Your task to perform on an android device: Clear the shopping cart on amazon.com. Add "razer kraken" to the cart on amazon.com Image 0: 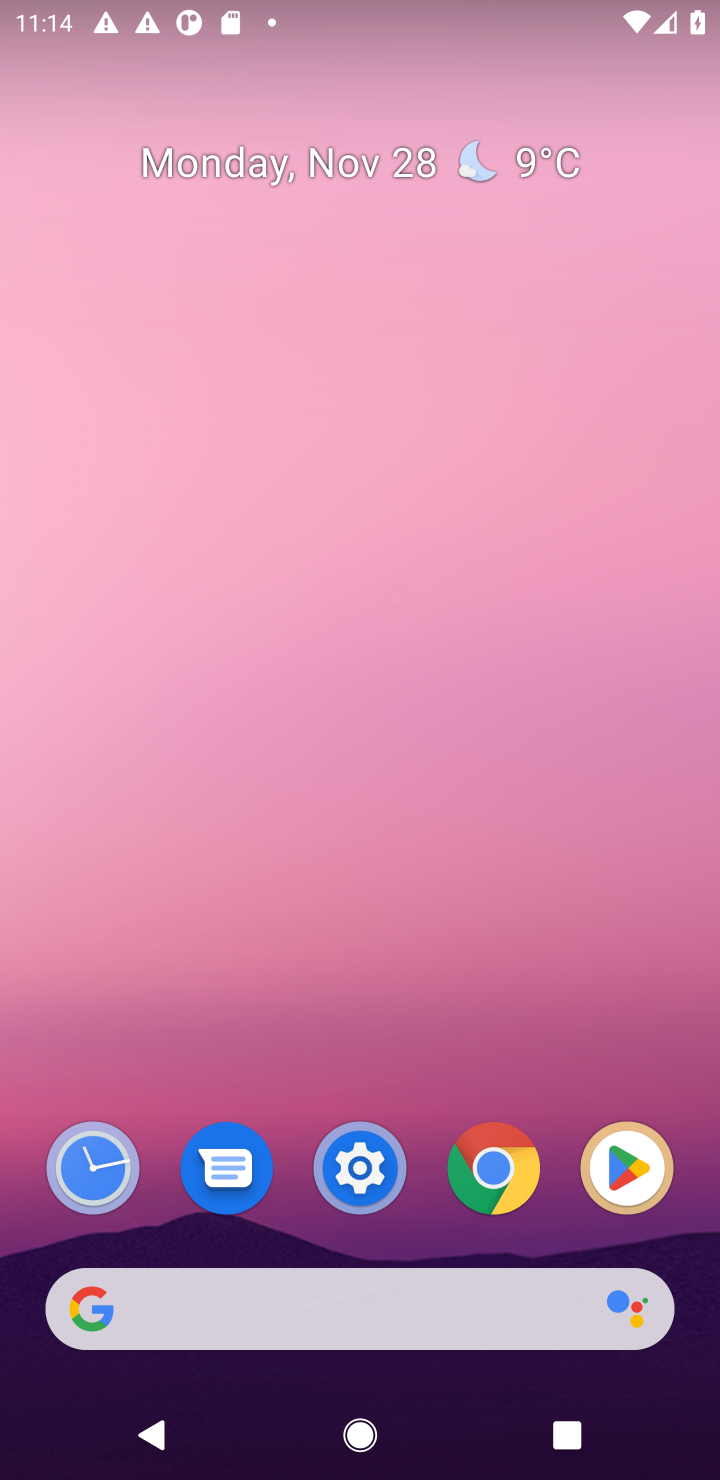
Step 0: click (200, 1296)
Your task to perform on an android device: Clear the shopping cart on amazon.com. Add "razer kraken" to the cart on amazon.com Image 1: 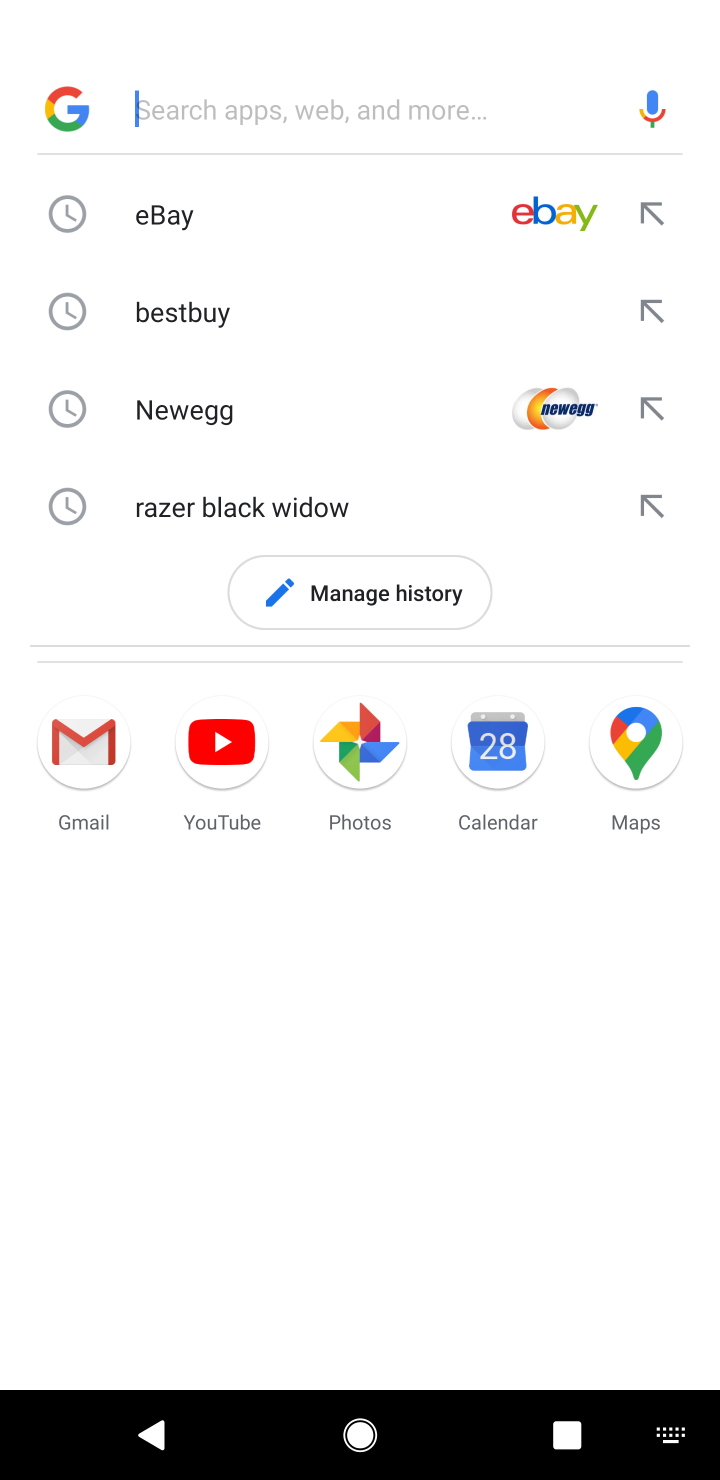
Step 1: type "amazon"
Your task to perform on an android device: Clear the shopping cart on amazon.com. Add "razer kraken" to the cart on amazon.com Image 2: 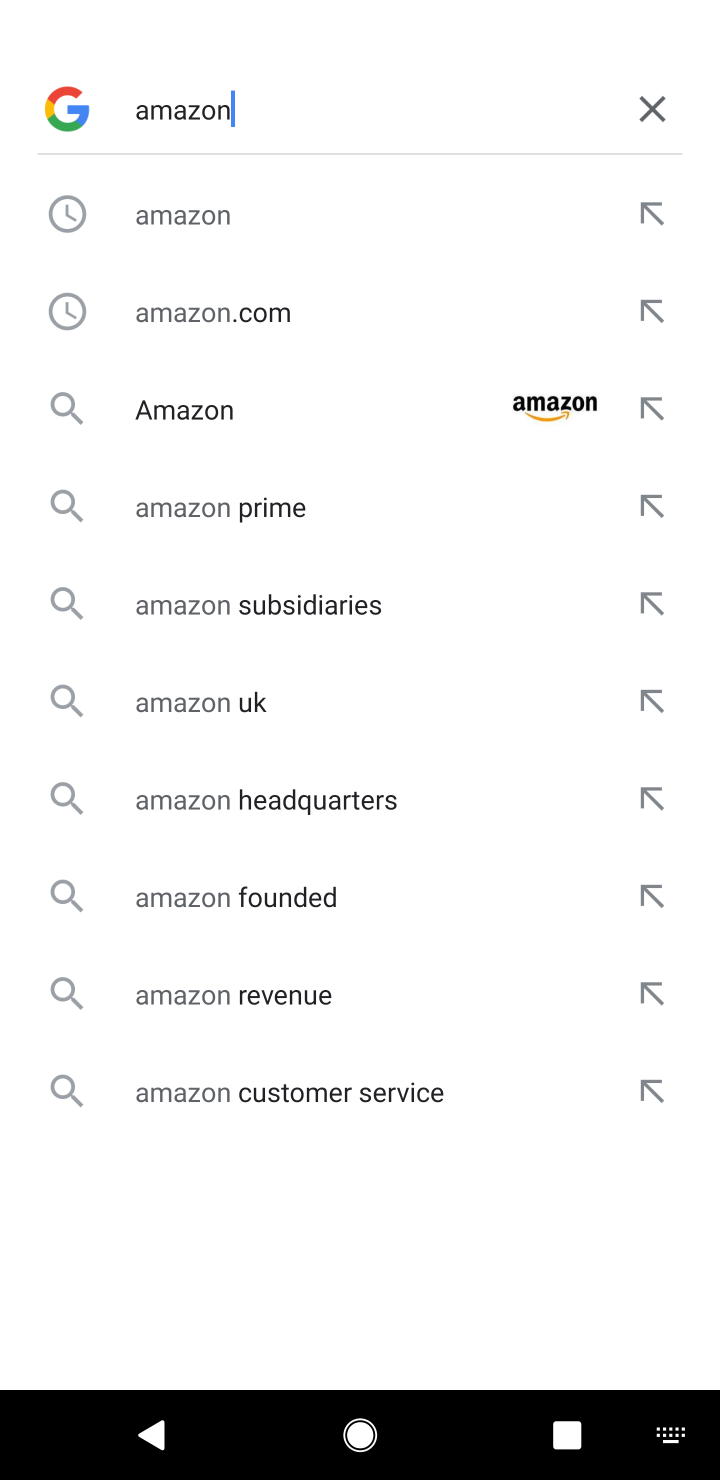
Step 2: click (289, 407)
Your task to perform on an android device: Clear the shopping cart on amazon.com. Add "razer kraken" to the cart on amazon.com Image 3: 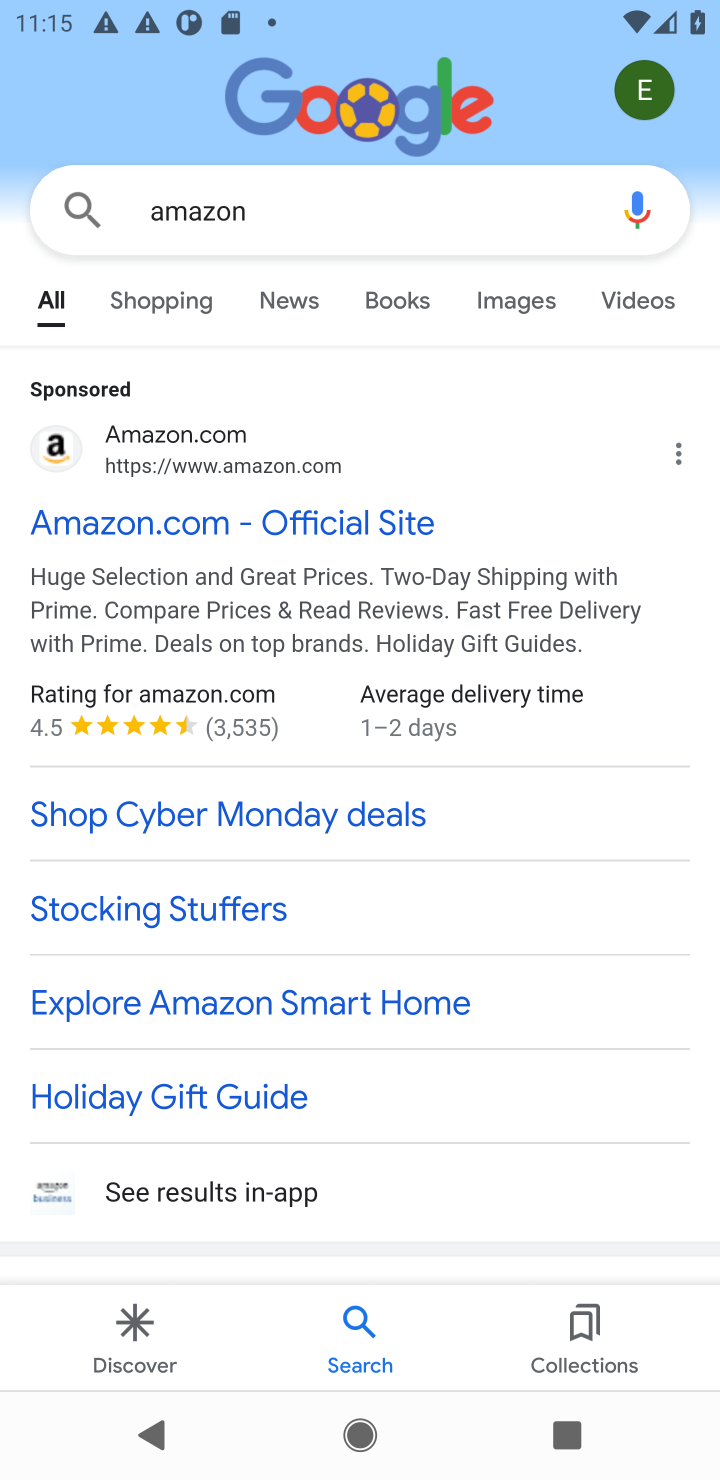
Step 3: click (207, 549)
Your task to perform on an android device: Clear the shopping cart on amazon.com. Add "razer kraken" to the cart on amazon.com Image 4: 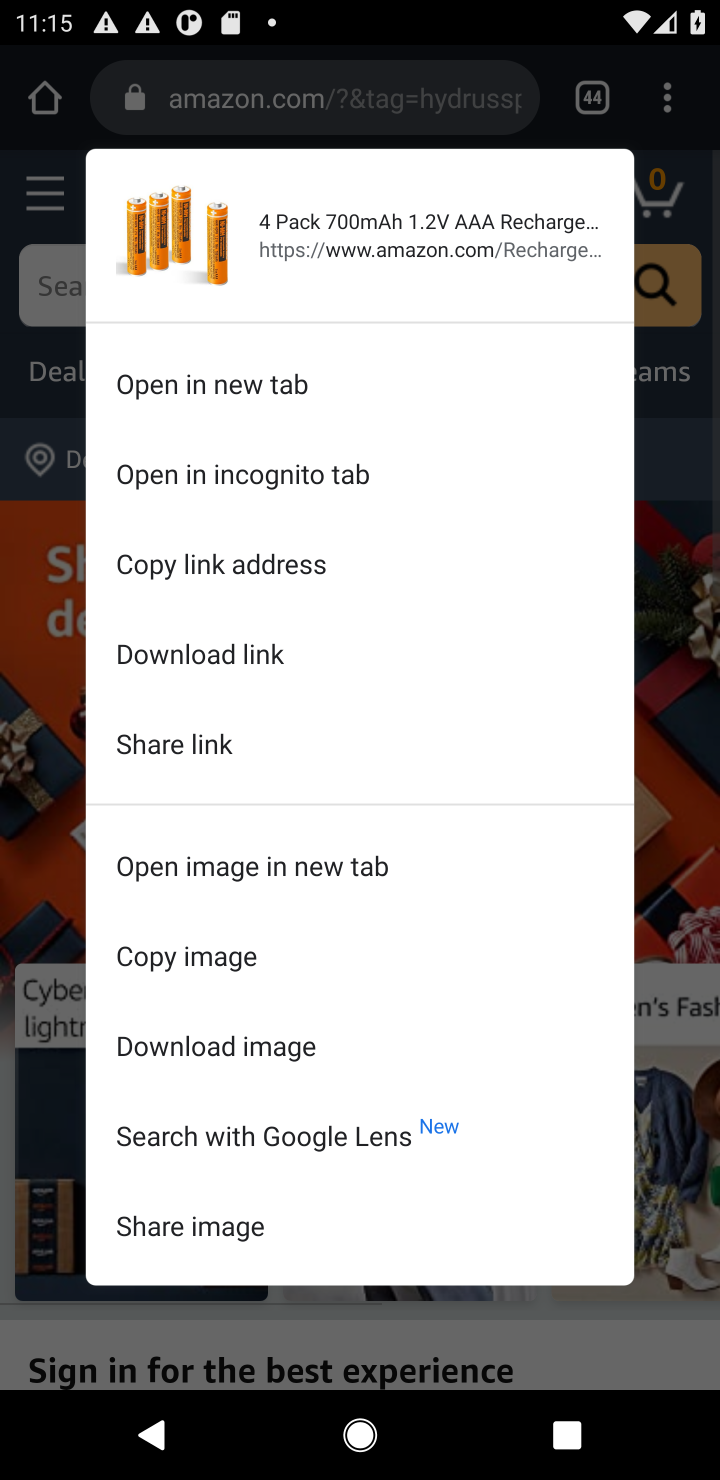
Step 4: task complete